Your task to perform on an android device: Go to calendar. Show me events next week Image 0: 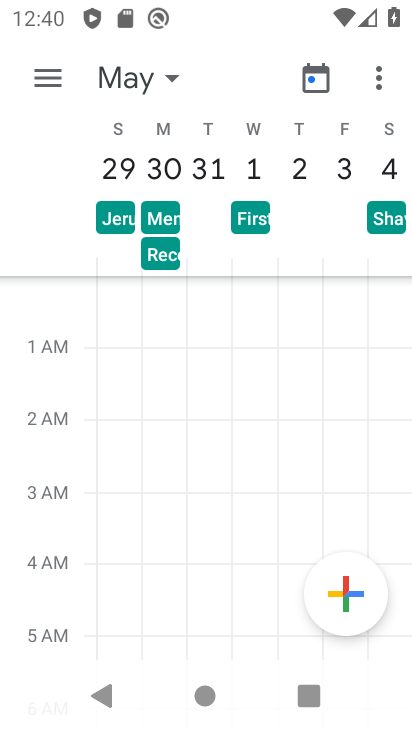
Step 0: click (48, 77)
Your task to perform on an android device: Go to calendar. Show me events next week Image 1: 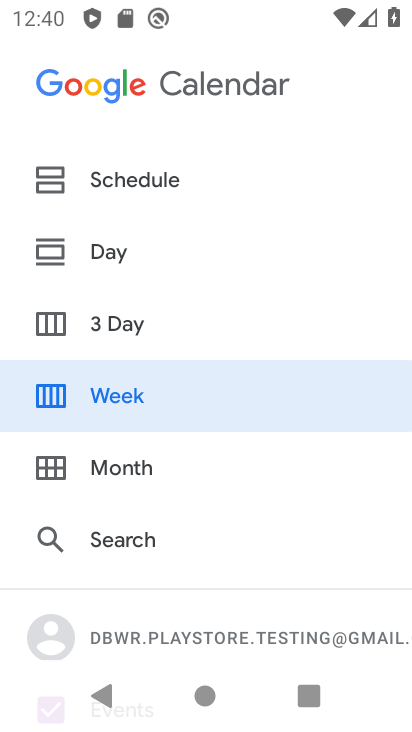
Step 1: drag from (207, 460) to (200, 97)
Your task to perform on an android device: Go to calendar. Show me events next week Image 2: 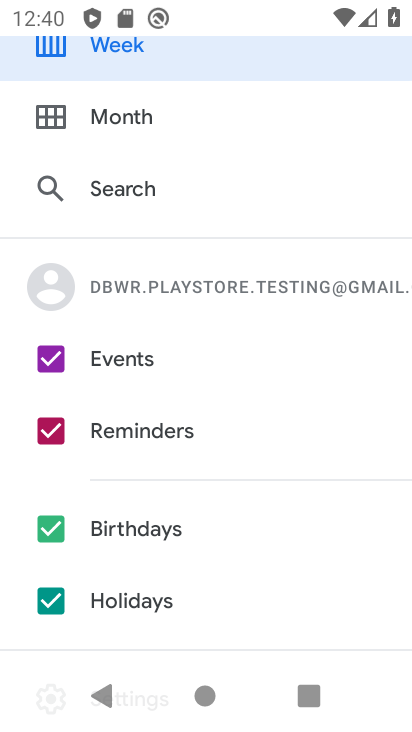
Step 2: click (57, 432)
Your task to perform on an android device: Go to calendar. Show me events next week Image 3: 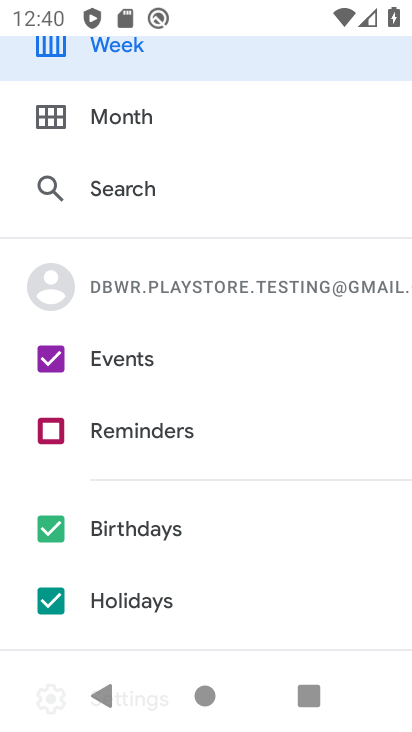
Step 3: click (58, 524)
Your task to perform on an android device: Go to calendar. Show me events next week Image 4: 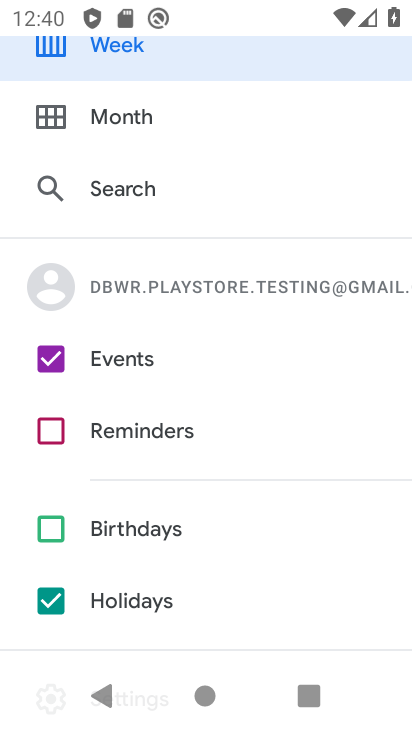
Step 4: click (52, 596)
Your task to perform on an android device: Go to calendar. Show me events next week Image 5: 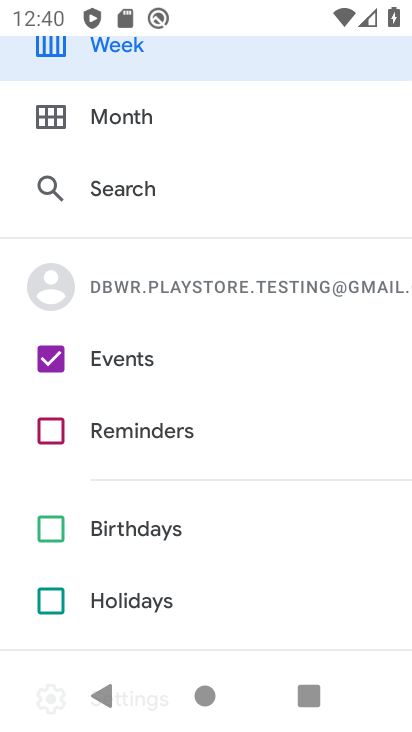
Step 5: drag from (365, 185) to (295, 631)
Your task to perform on an android device: Go to calendar. Show me events next week Image 6: 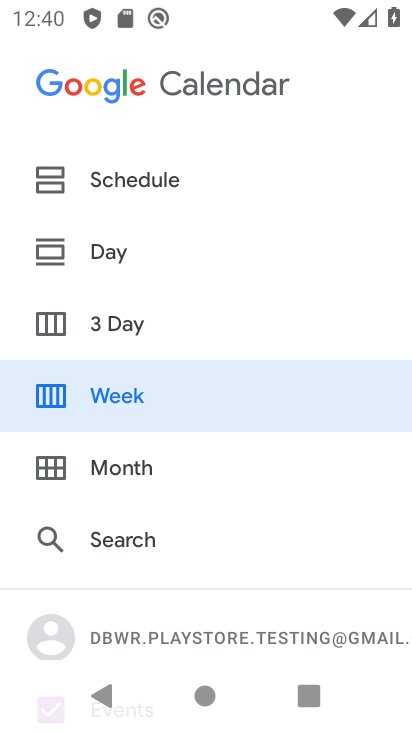
Step 6: click (135, 396)
Your task to perform on an android device: Go to calendar. Show me events next week Image 7: 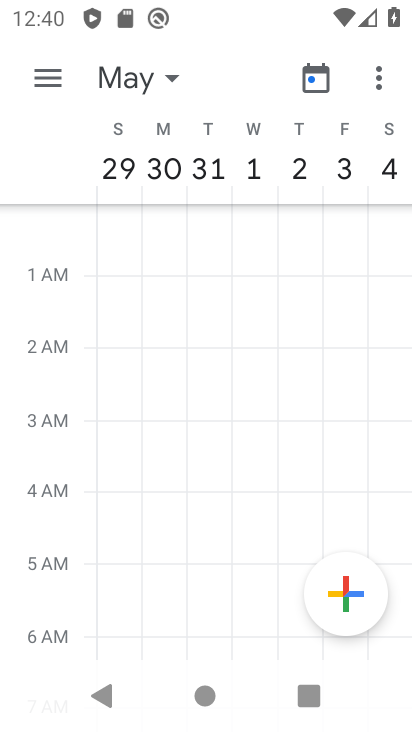
Step 7: click (158, 80)
Your task to perform on an android device: Go to calendar. Show me events next week Image 8: 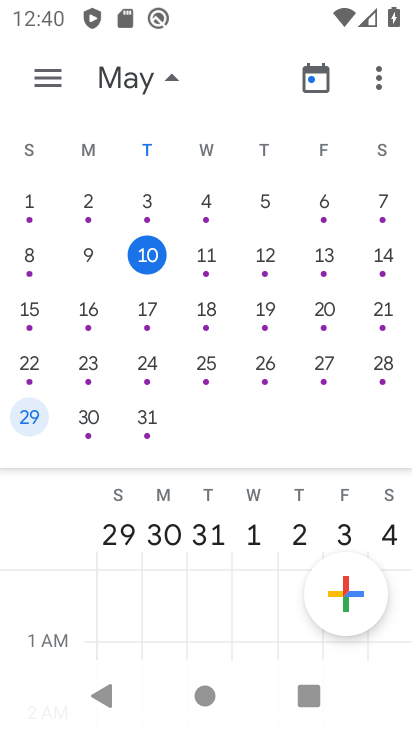
Step 8: click (89, 308)
Your task to perform on an android device: Go to calendar. Show me events next week Image 9: 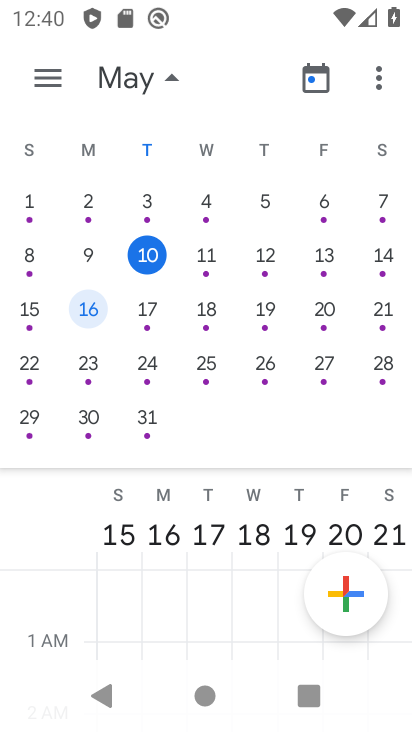
Step 9: task complete